Your task to perform on an android device: Open settings Image 0: 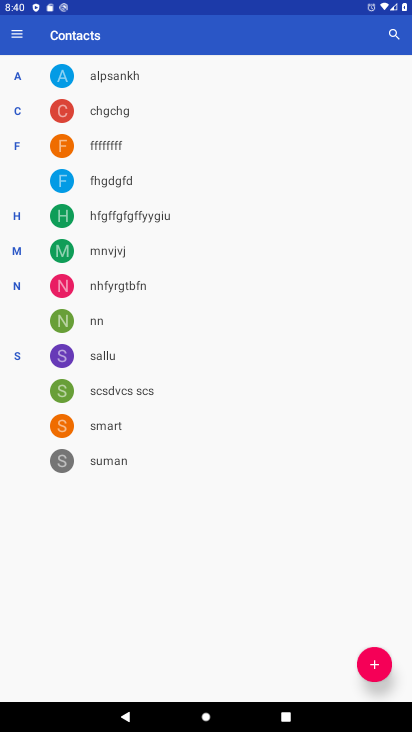
Step 0: press home button
Your task to perform on an android device: Open settings Image 1: 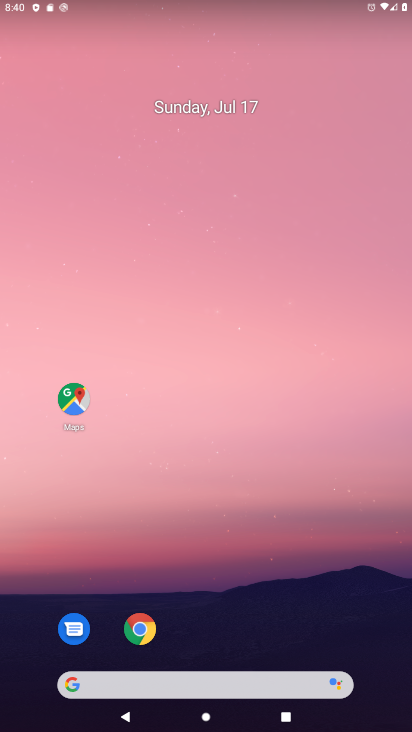
Step 1: drag from (264, 586) to (317, 14)
Your task to perform on an android device: Open settings Image 2: 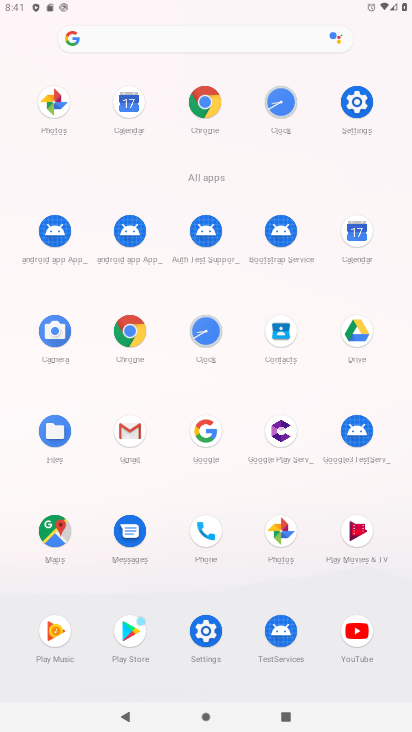
Step 2: click (347, 102)
Your task to perform on an android device: Open settings Image 3: 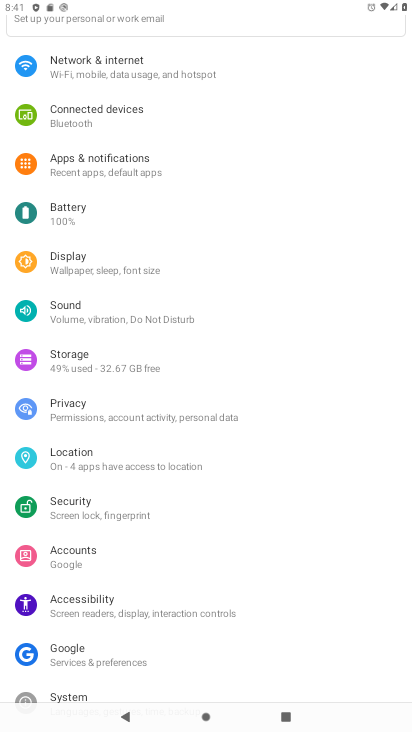
Step 3: task complete